Your task to perform on an android device: check out phone information Image 0: 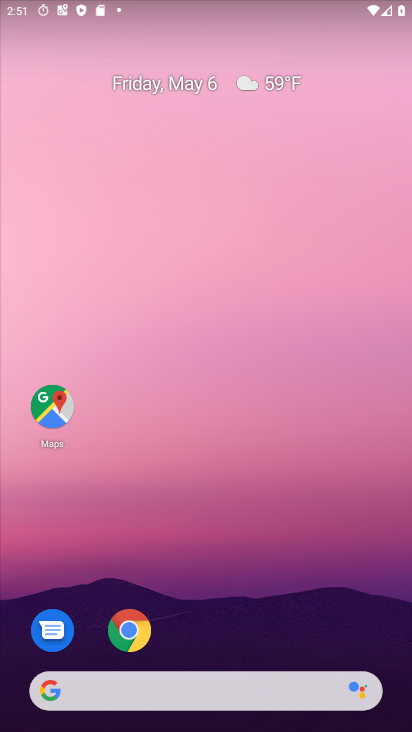
Step 0: drag from (242, 632) to (247, 156)
Your task to perform on an android device: check out phone information Image 1: 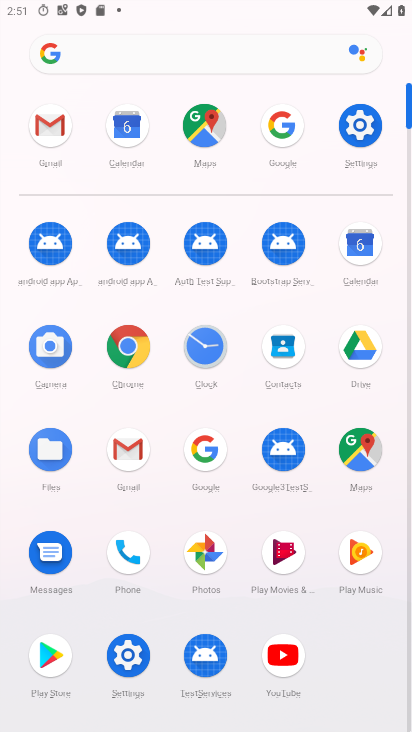
Step 1: click (348, 122)
Your task to perform on an android device: check out phone information Image 2: 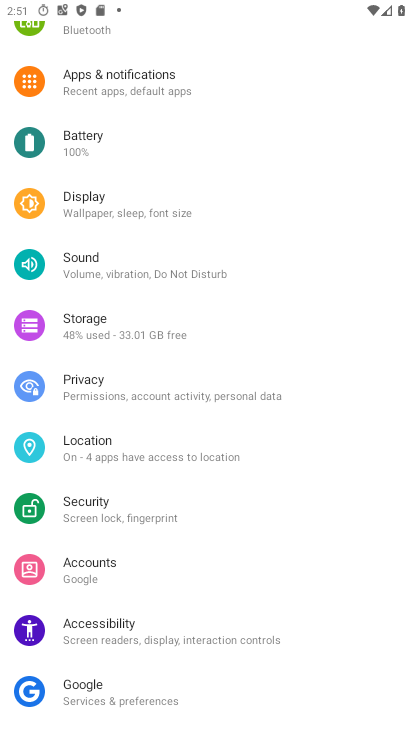
Step 2: drag from (200, 565) to (217, 166)
Your task to perform on an android device: check out phone information Image 3: 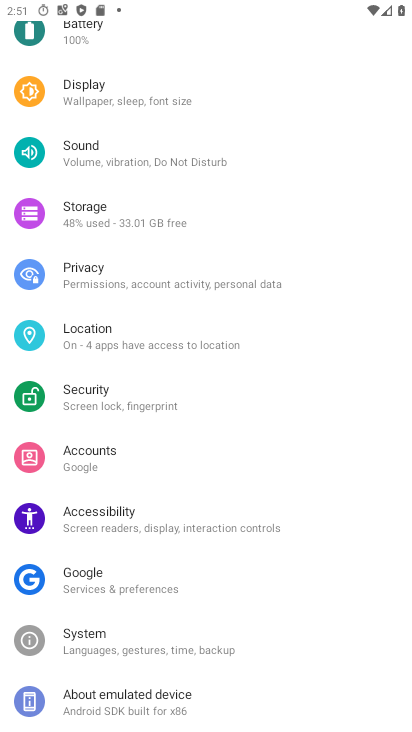
Step 3: click (110, 686)
Your task to perform on an android device: check out phone information Image 4: 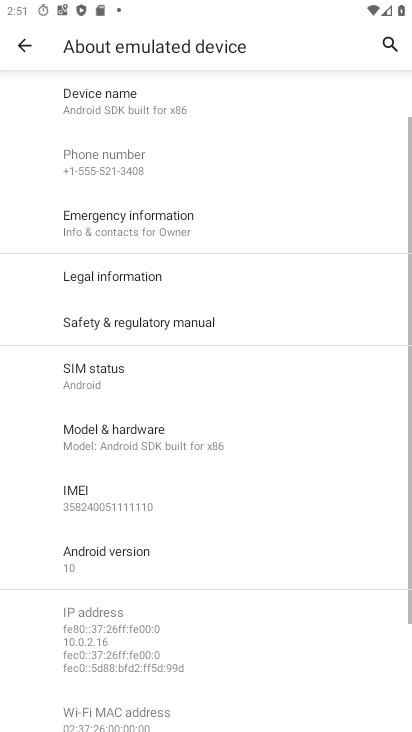
Step 4: task complete